Your task to perform on an android device: Search for 'The Girl on the Train' on Goodreads. Image 0: 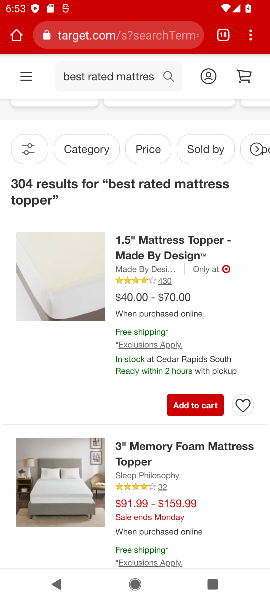
Step 0: press home button
Your task to perform on an android device: Search for 'The Girl on the Train' on Goodreads. Image 1: 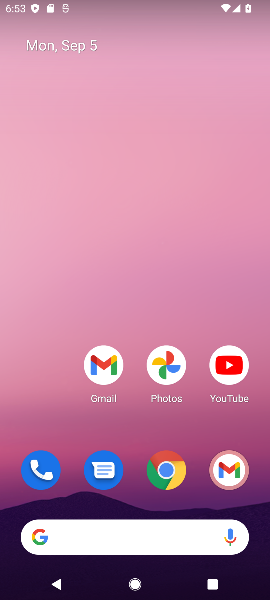
Step 1: click (92, 536)
Your task to perform on an android device: Search for 'The Girl on the Train' on Goodreads. Image 2: 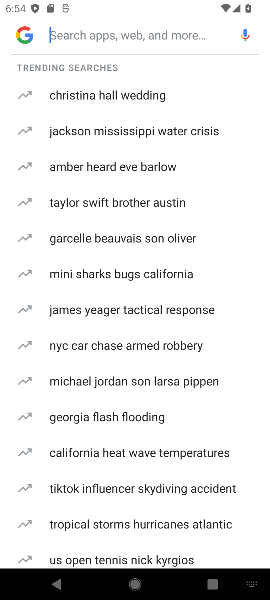
Step 2: type "goodreads"
Your task to perform on an android device: Search for 'The Girl on the Train' on Goodreads. Image 3: 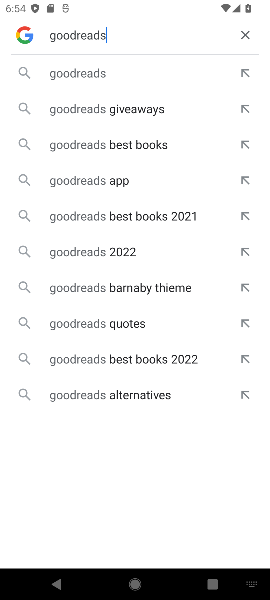
Step 3: click (101, 68)
Your task to perform on an android device: Search for 'The Girl on the Train' on Goodreads. Image 4: 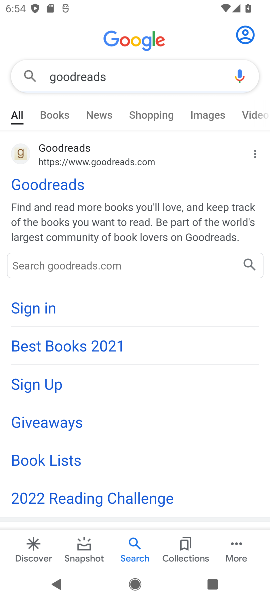
Step 4: click (45, 181)
Your task to perform on an android device: Search for 'The Girl on the Train' on Goodreads. Image 5: 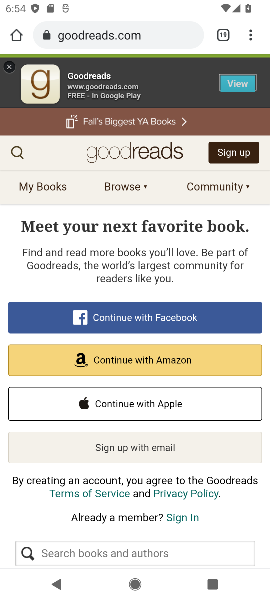
Step 5: click (19, 149)
Your task to perform on an android device: Search for 'The Girl on the Train' on Goodreads. Image 6: 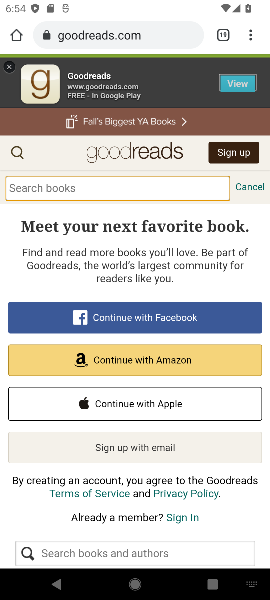
Step 6: click (38, 186)
Your task to perform on an android device: Search for 'The Girl on the Train' on Goodreads. Image 7: 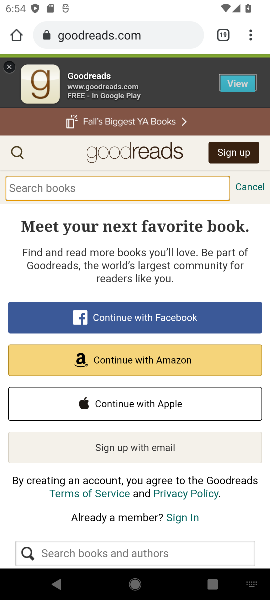
Step 7: type "The Girl on the Train"
Your task to perform on an android device: Search for 'The Girl on the Train' on Goodreads. Image 8: 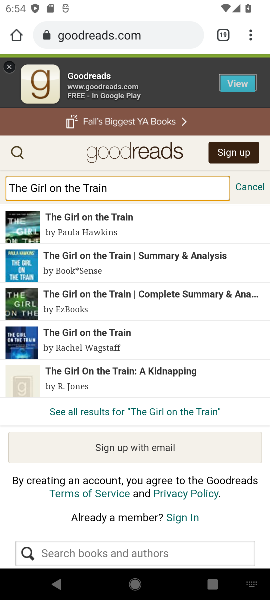
Step 8: click (121, 414)
Your task to perform on an android device: Search for 'The Girl on the Train' on Goodreads. Image 9: 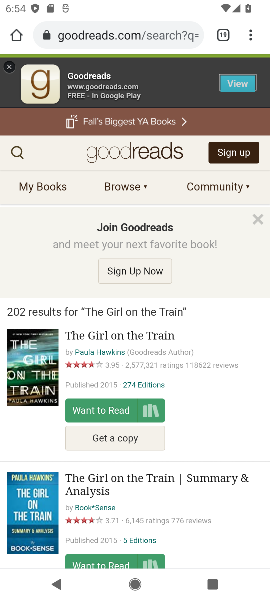
Step 9: task complete